Your task to perform on an android device: open app "Fetch Rewards" (install if not already installed) and enter user name: "Westwood@yahoo.com" and password: "qualifying" Image 0: 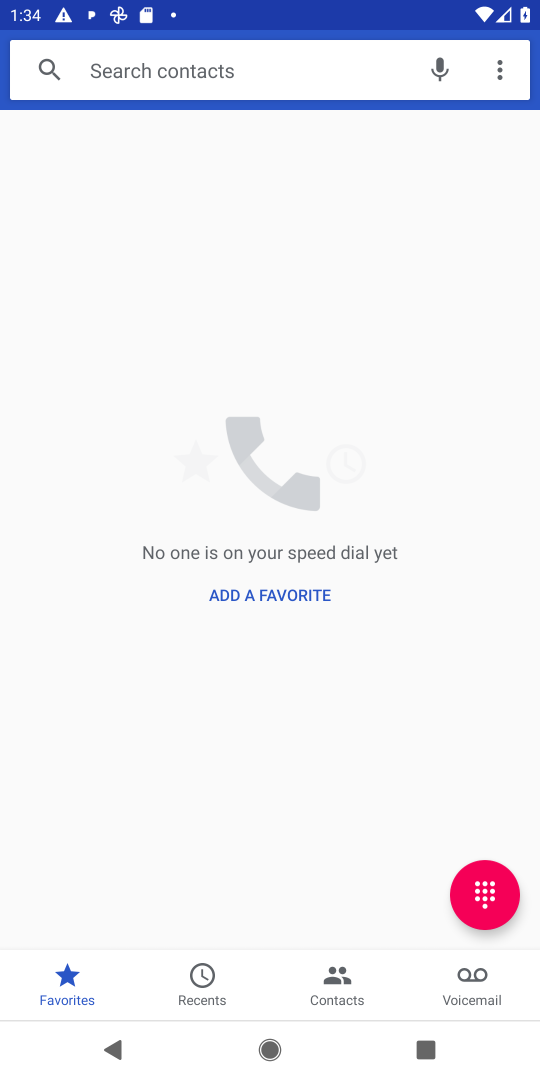
Step 0: press home button
Your task to perform on an android device: open app "Fetch Rewards" (install if not already installed) and enter user name: "Westwood@yahoo.com" and password: "qualifying" Image 1: 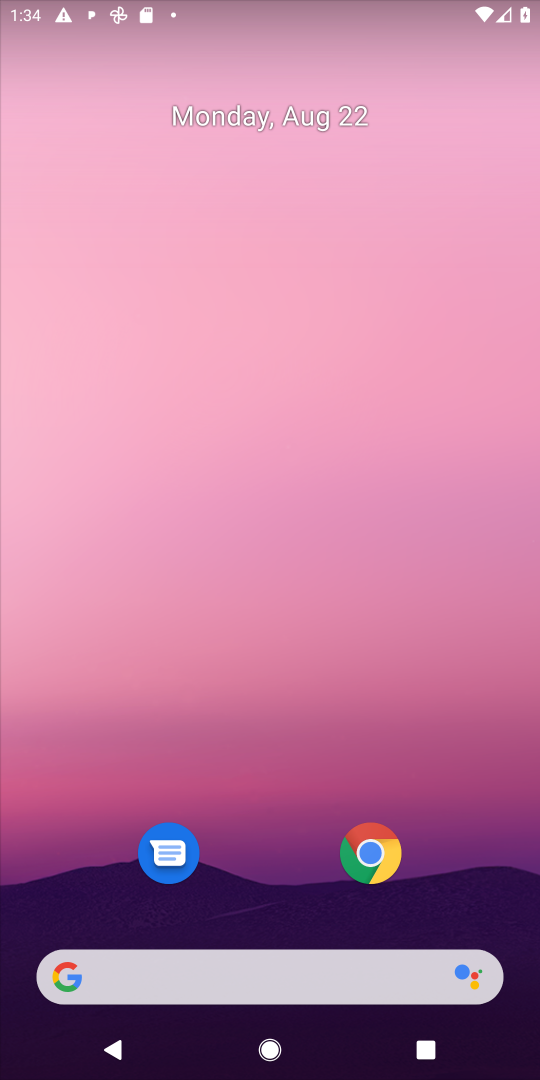
Step 1: drag from (201, 922) to (335, 259)
Your task to perform on an android device: open app "Fetch Rewards" (install if not already installed) and enter user name: "Westwood@yahoo.com" and password: "qualifying" Image 2: 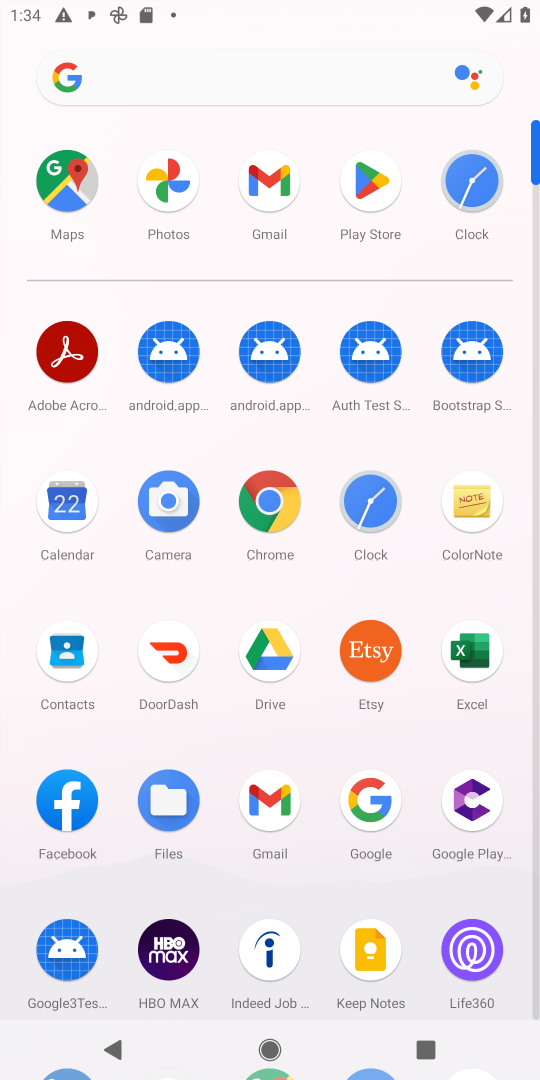
Step 2: click (367, 165)
Your task to perform on an android device: open app "Fetch Rewards" (install if not already installed) and enter user name: "Westwood@yahoo.com" and password: "qualifying" Image 3: 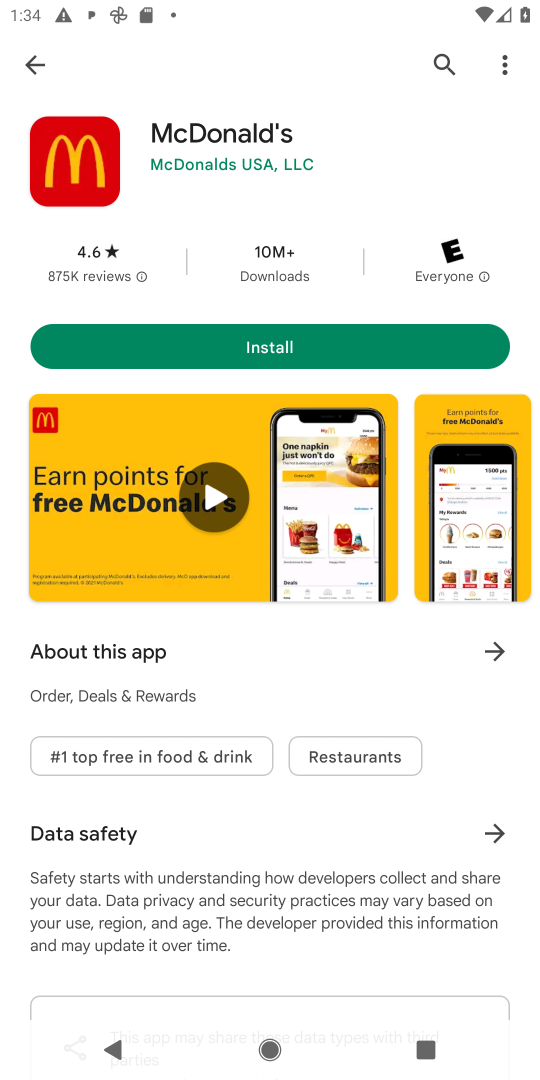
Step 3: click (23, 53)
Your task to perform on an android device: open app "Fetch Rewards" (install if not already installed) and enter user name: "Westwood@yahoo.com" and password: "qualifying" Image 4: 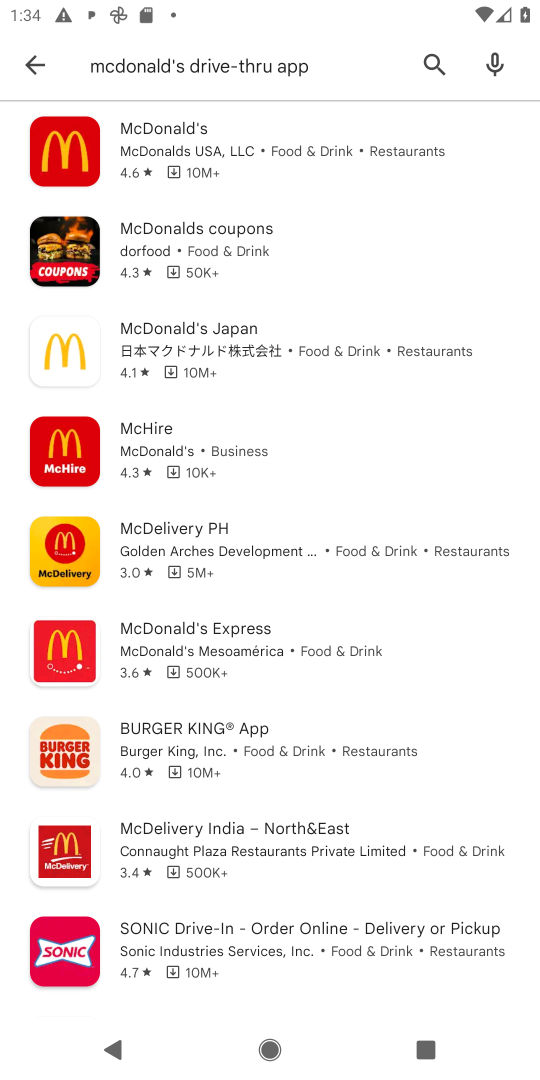
Step 4: click (32, 53)
Your task to perform on an android device: open app "Fetch Rewards" (install if not already installed) and enter user name: "Westwood@yahoo.com" and password: "qualifying" Image 5: 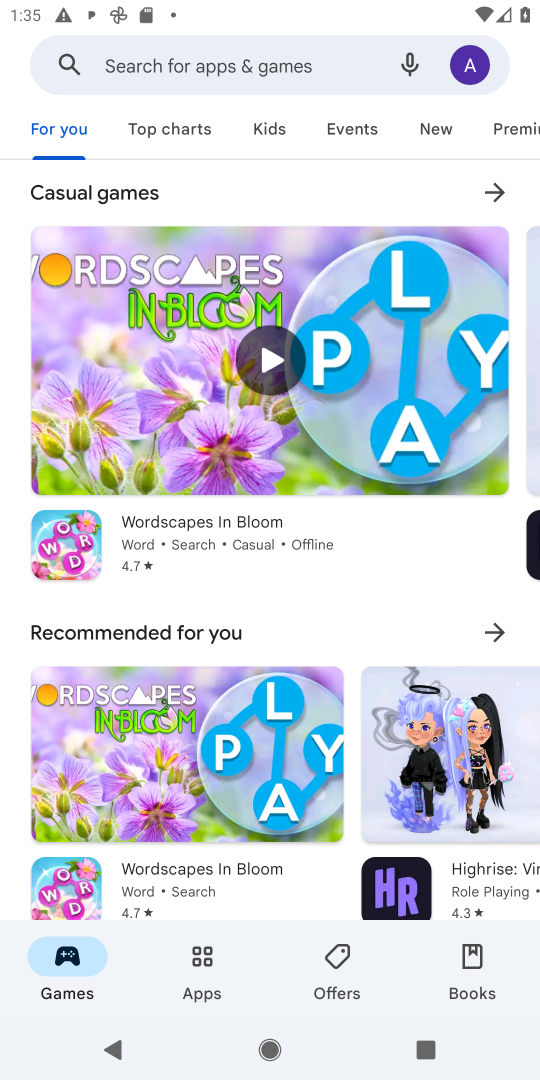
Step 5: click (313, 64)
Your task to perform on an android device: open app "Fetch Rewards" (install if not already installed) and enter user name: "Westwood@yahoo.com" and password: "qualifying" Image 6: 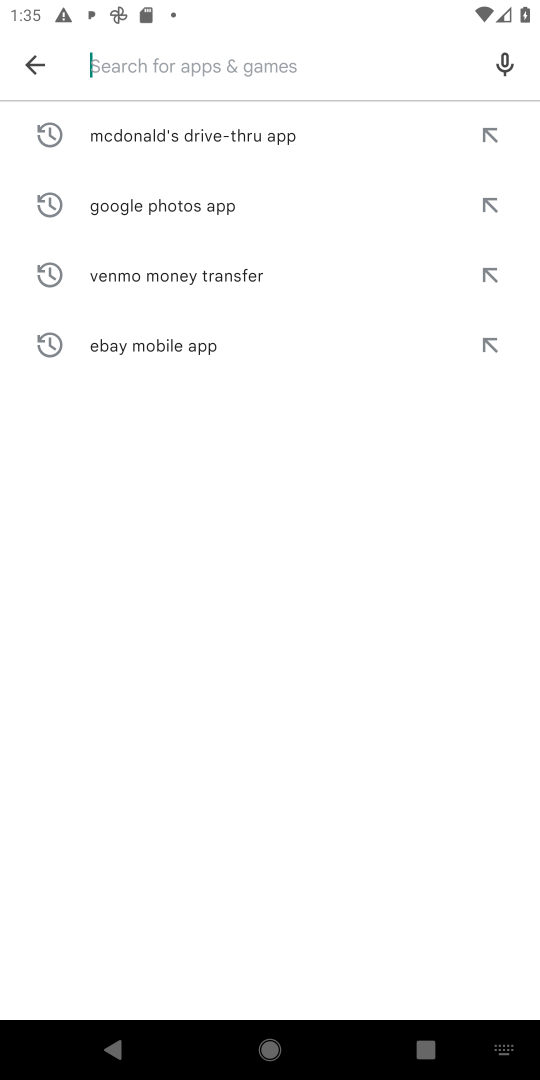
Step 6: type "Fetch Rewards "
Your task to perform on an android device: open app "Fetch Rewards" (install if not already installed) and enter user name: "Westwood@yahoo.com" and password: "qualifying" Image 7: 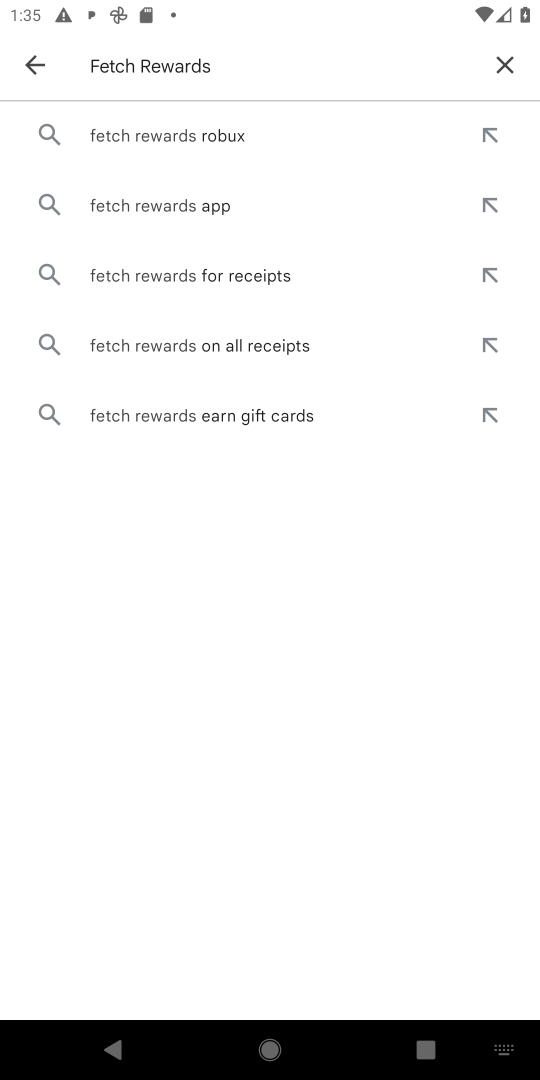
Step 7: click (229, 208)
Your task to perform on an android device: open app "Fetch Rewards" (install if not already installed) and enter user name: "Westwood@yahoo.com" and password: "qualifying" Image 8: 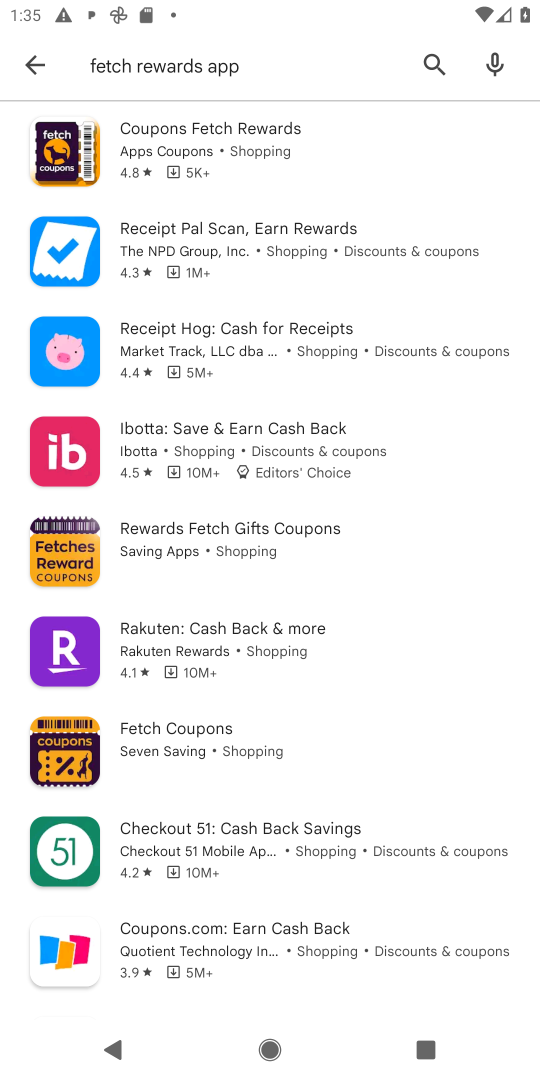
Step 8: click (268, 134)
Your task to perform on an android device: open app "Fetch Rewards" (install if not already installed) and enter user name: "Westwood@yahoo.com" and password: "qualifying" Image 9: 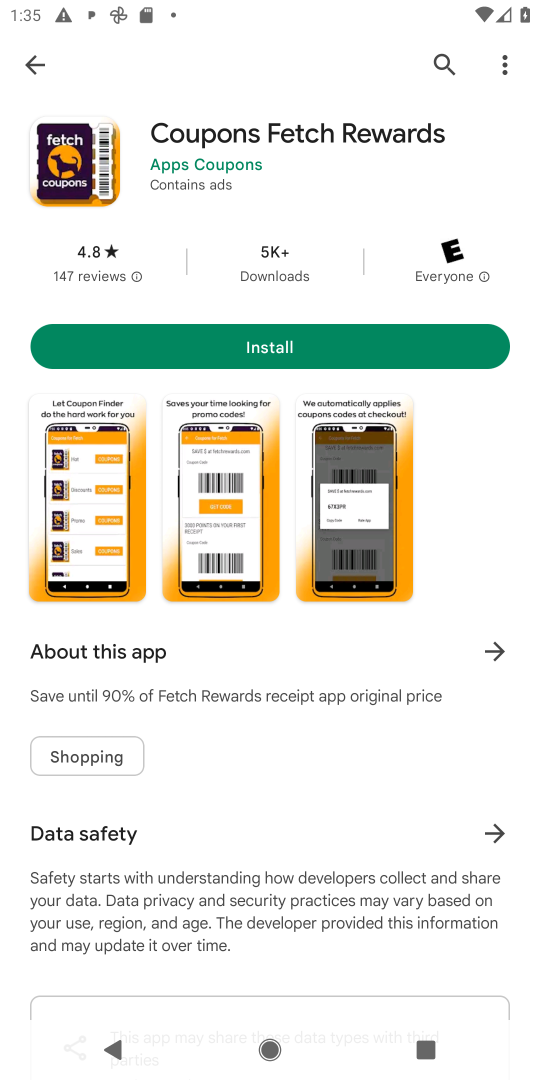
Step 9: click (269, 334)
Your task to perform on an android device: open app "Fetch Rewards" (install if not already installed) and enter user name: "Westwood@yahoo.com" and password: "qualifying" Image 10: 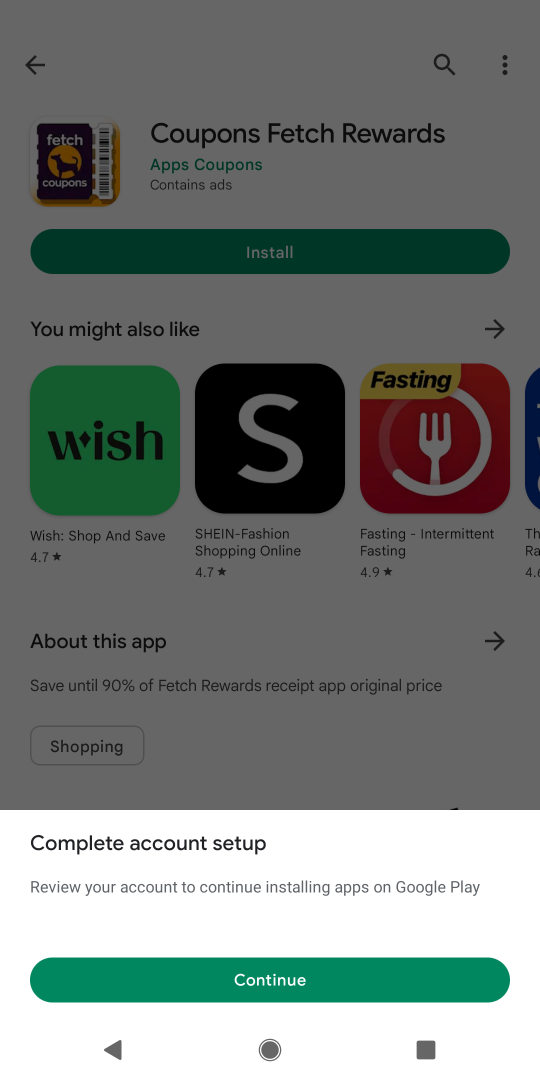
Step 10: task complete